Your task to perform on an android device: change notification settings in the gmail app Image 0: 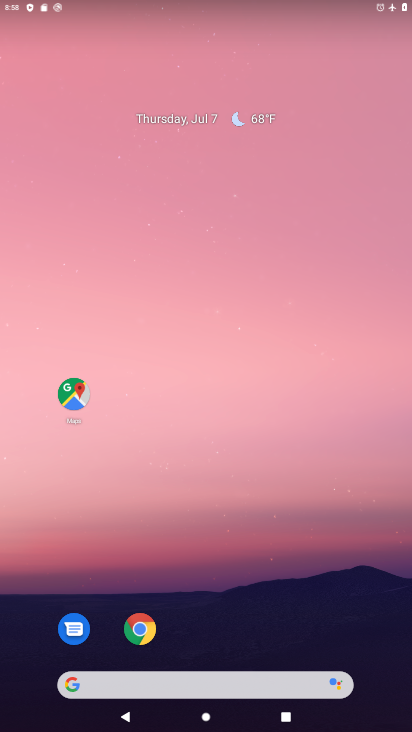
Step 0: drag from (213, 628) to (238, 72)
Your task to perform on an android device: change notification settings in the gmail app Image 1: 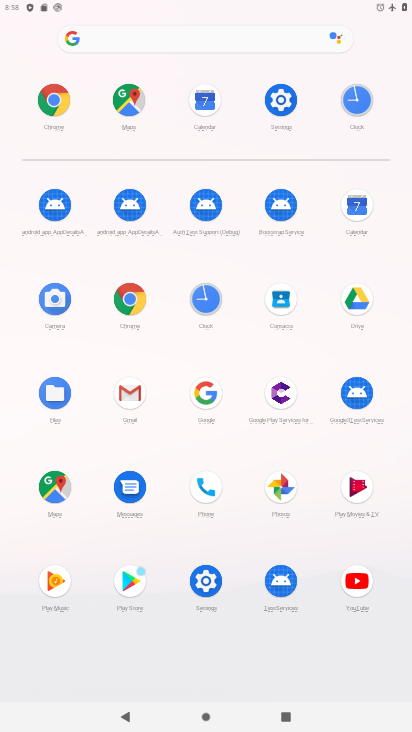
Step 1: click (128, 392)
Your task to perform on an android device: change notification settings in the gmail app Image 2: 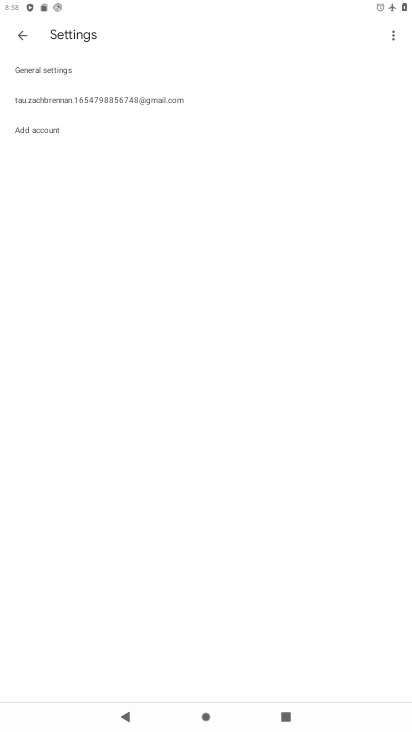
Step 2: click (175, 95)
Your task to perform on an android device: change notification settings in the gmail app Image 3: 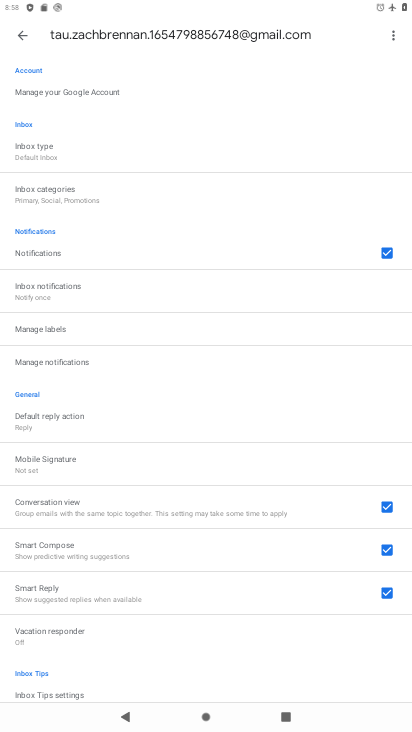
Step 3: click (64, 252)
Your task to perform on an android device: change notification settings in the gmail app Image 4: 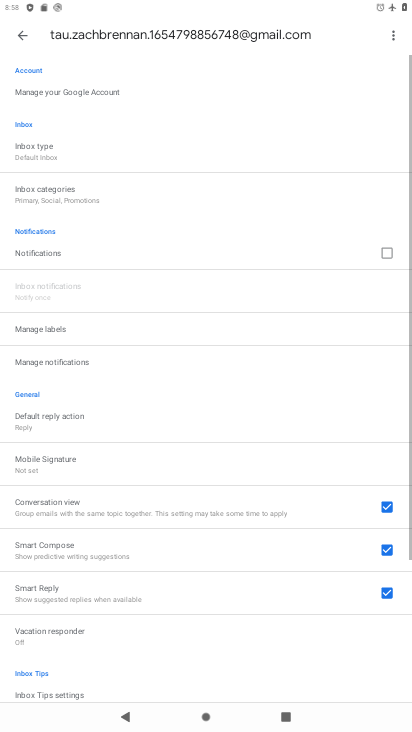
Step 4: task complete